Your task to perform on an android device: Go to ESPN.com Image 0: 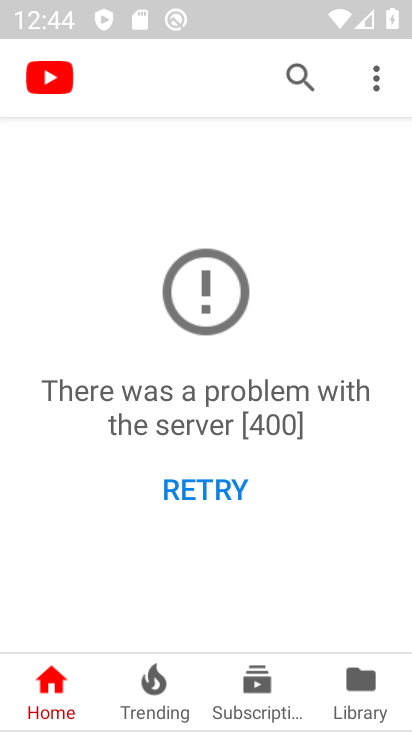
Step 0: press home button
Your task to perform on an android device: Go to ESPN.com Image 1: 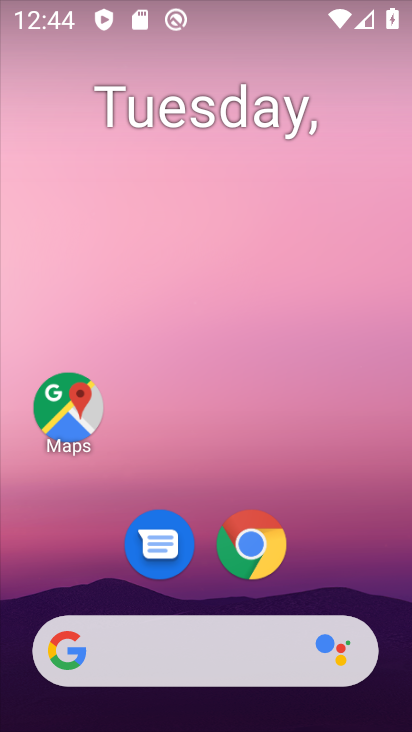
Step 1: click (255, 542)
Your task to perform on an android device: Go to ESPN.com Image 2: 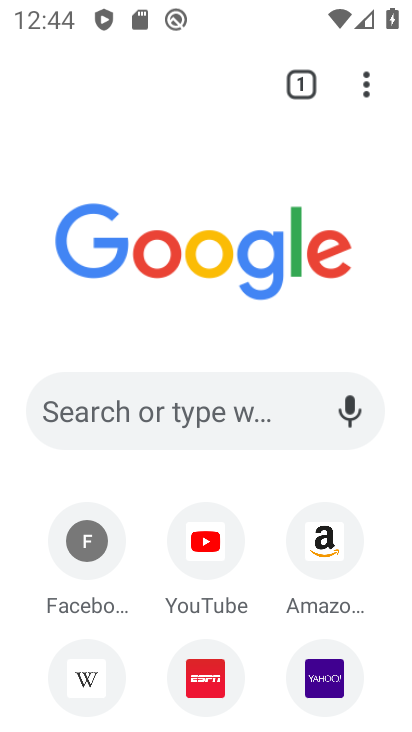
Step 2: click (121, 413)
Your task to perform on an android device: Go to ESPN.com Image 3: 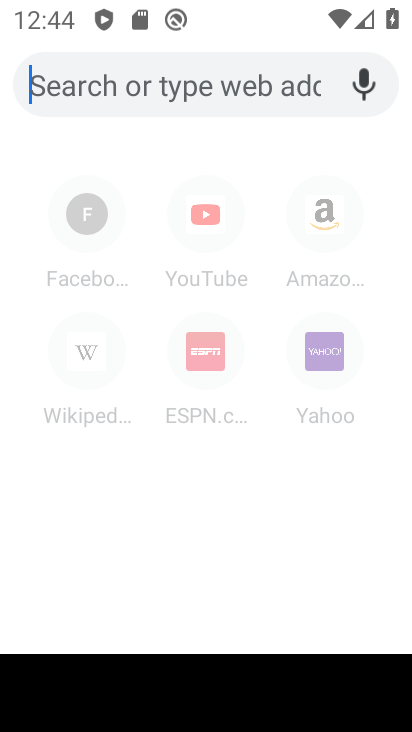
Step 3: type "espn.com"
Your task to perform on an android device: Go to ESPN.com Image 4: 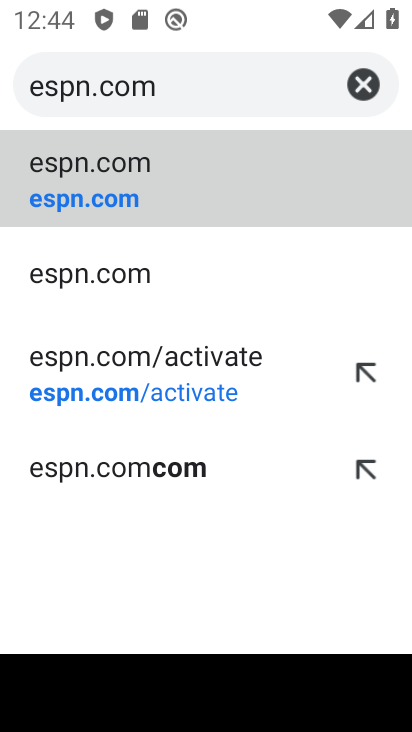
Step 4: click (91, 168)
Your task to perform on an android device: Go to ESPN.com Image 5: 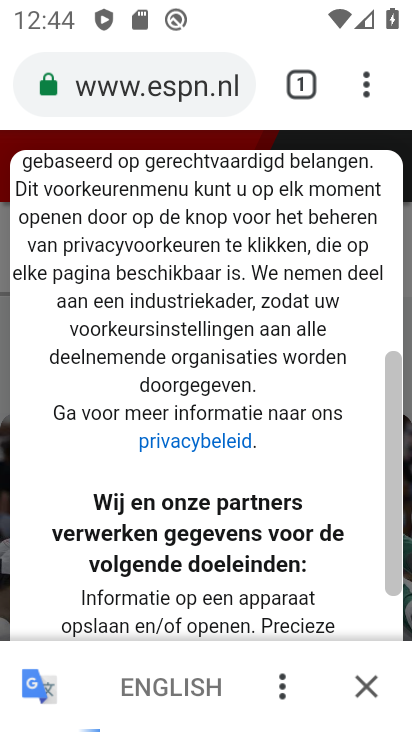
Step 5: click (364, 682)
Your task to perform on an android device: Go to ESPN.com Image 6: 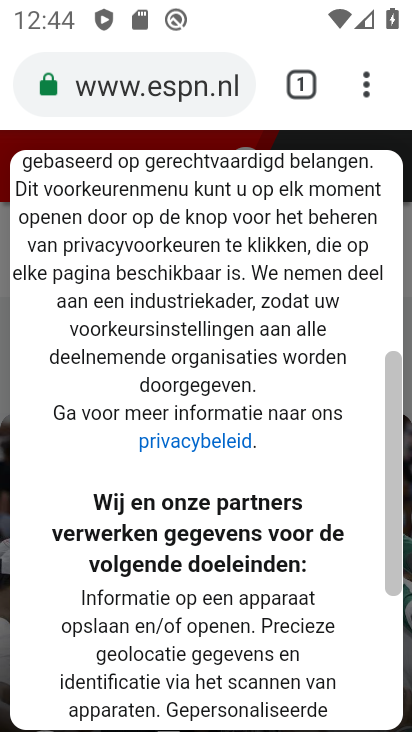
Step 6: drag from (287, 613) to (247, 134)
Your task to perform on an android device: Go to ESPN.com Image 7: 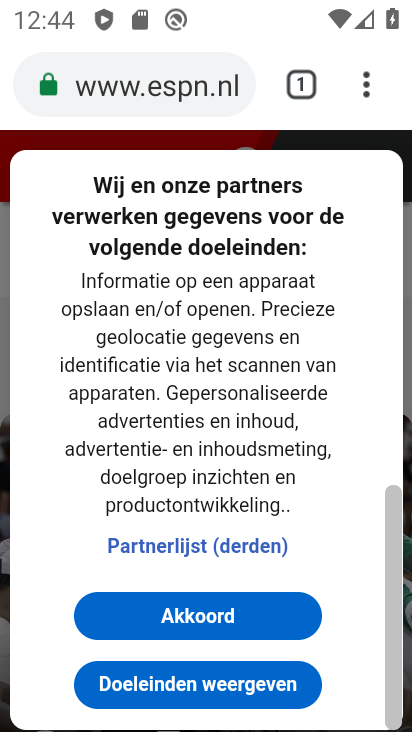
Step 7: click (187, 605)
Your task to perform on an android device: Go to ESPN.com Image 8: 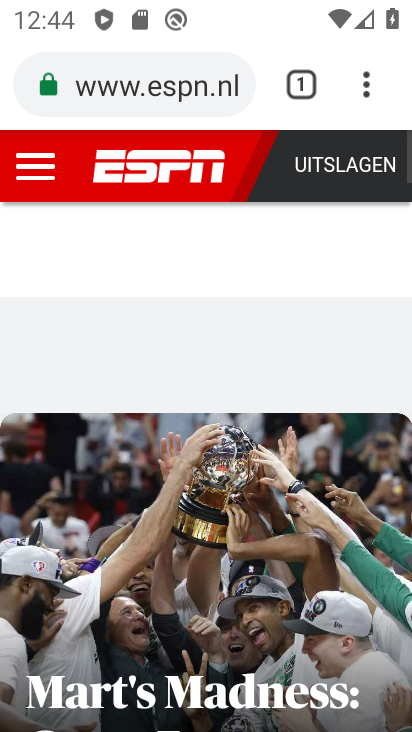
Step 8: task complete